Your task to perform on an android device: What is the news today? Image 0: 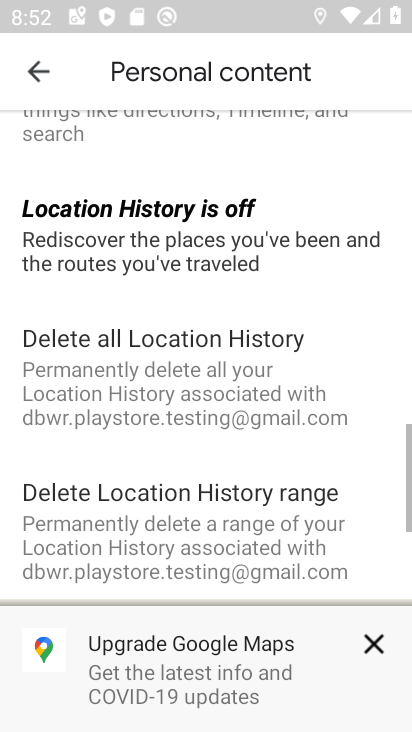
Step 0: drag from (256, 619) to (120, 150)
Your task to perform on an android device: What is the news today? Image 1: 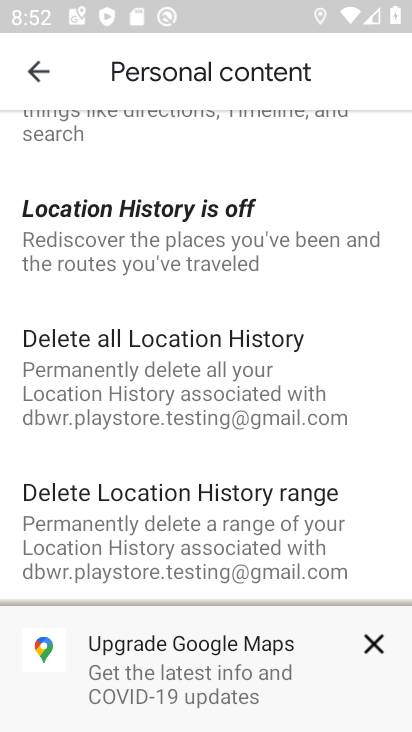
Step 1: task complete